Your task to perform on an android device: When is my next appointment? Image 0: 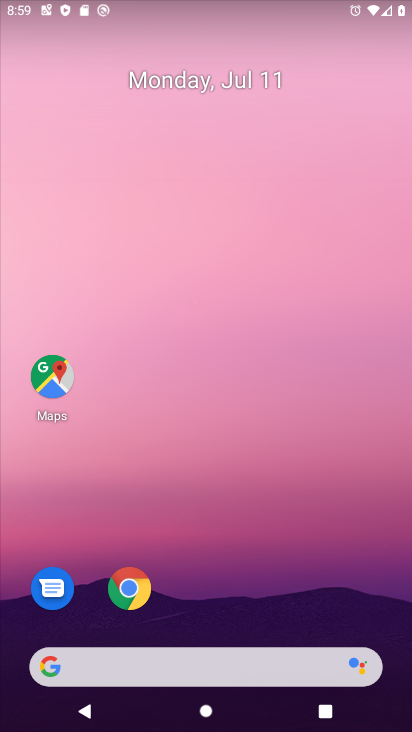
Step 0: drag from (235, 560) to (264, 53)
Your task to perform on an android device: When is my next appointment? Image 1: 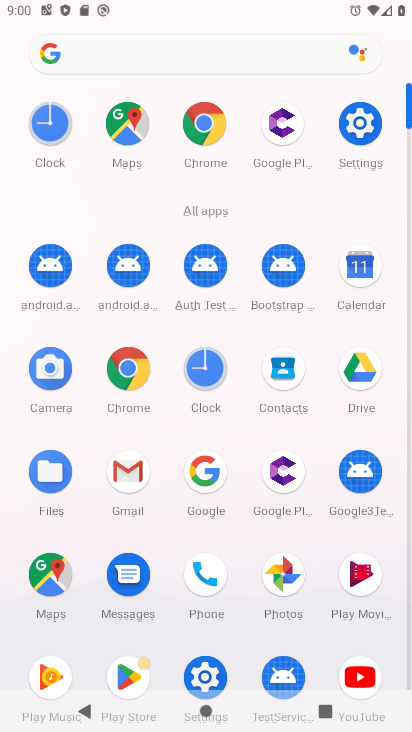
Step 1: click (356, 256)
Your task to perform on an android device: When is my next appointment? Image 2: 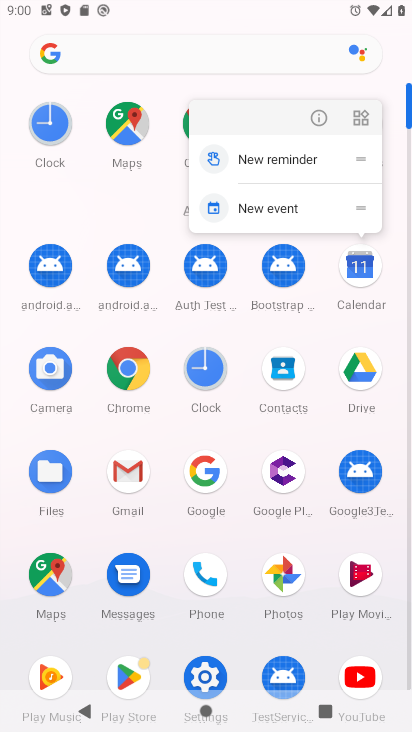
Step 2: click (351, 261)
Your task to perform on an android device: When is my next appointment? Image 3: 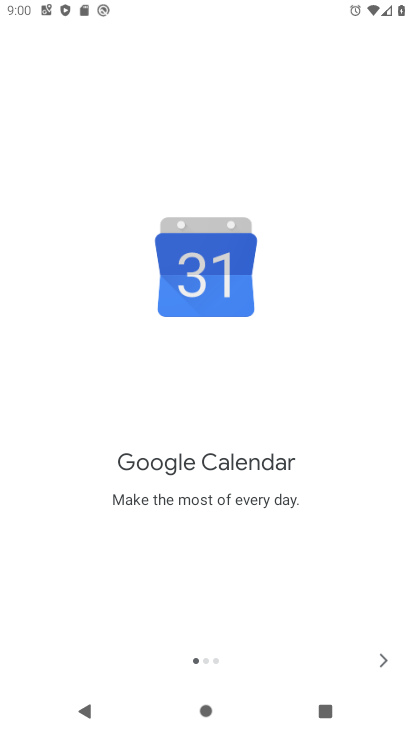
Step 3: click (395, 661)
Your task to perform on an android device: When is my next appointment? Image 4: 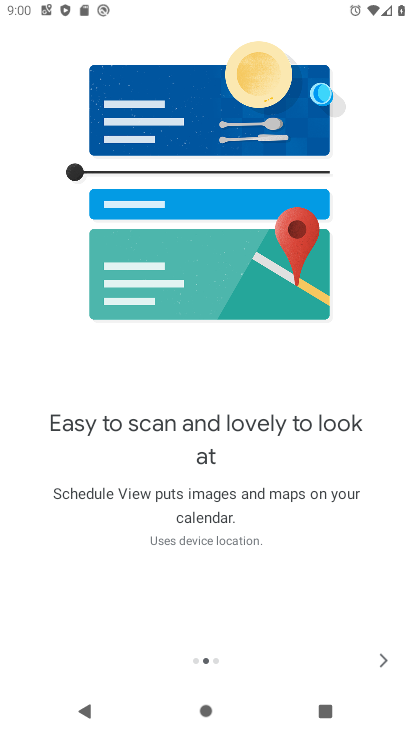
Step 4: click (382, 642)
Your task to perform on an android device: When is my next appointment? Image 5: 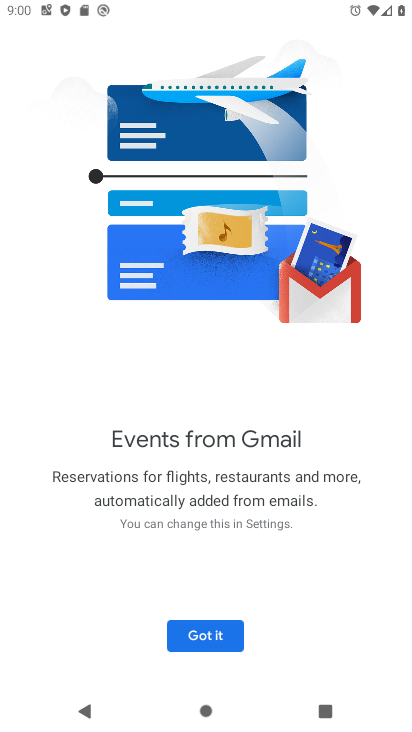
Step 5: click (260, 635)
Your task to perform on an android device: When is my next appointment? Image 6: 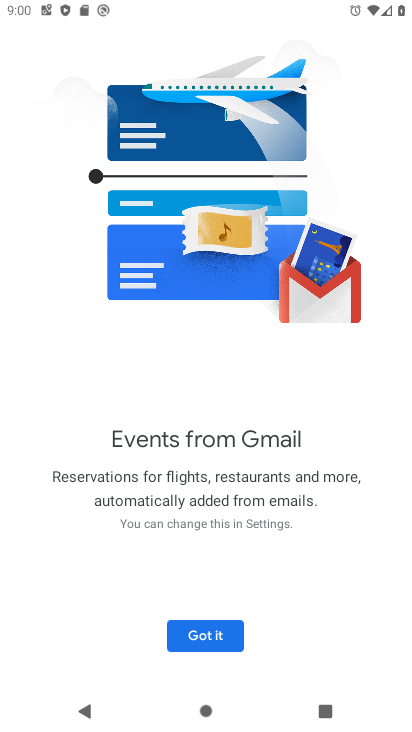
Step 6: click (211, 635)
Your task to perform on an android device: When is my next appointment? Image 7: 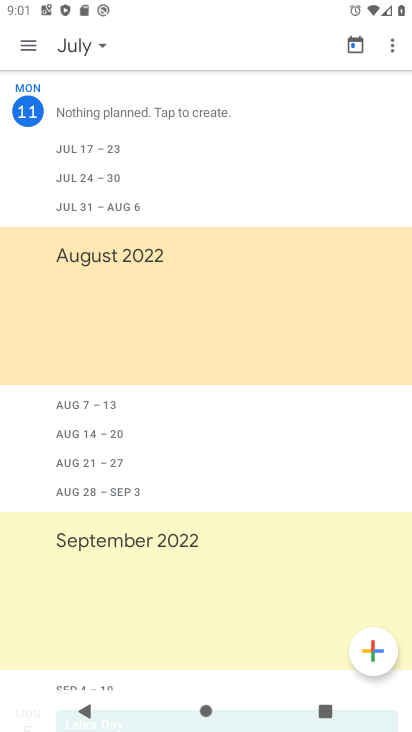
Step 7: task complete